Your task to perform on an android device: Go to eBay Image 0: 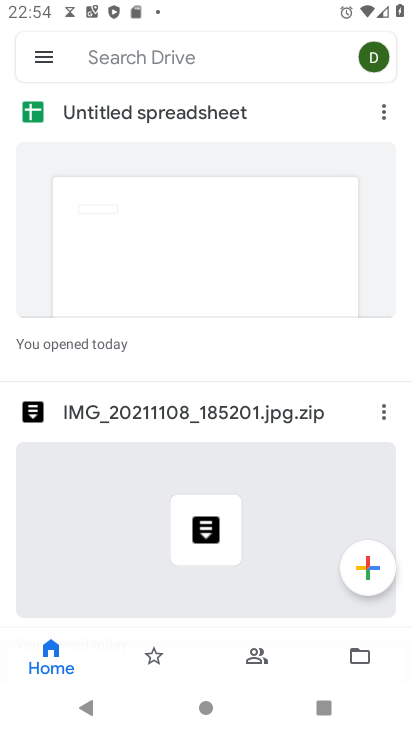
Step 0: press home button
Your task to perform on an android device: Go to eBay Image 1: 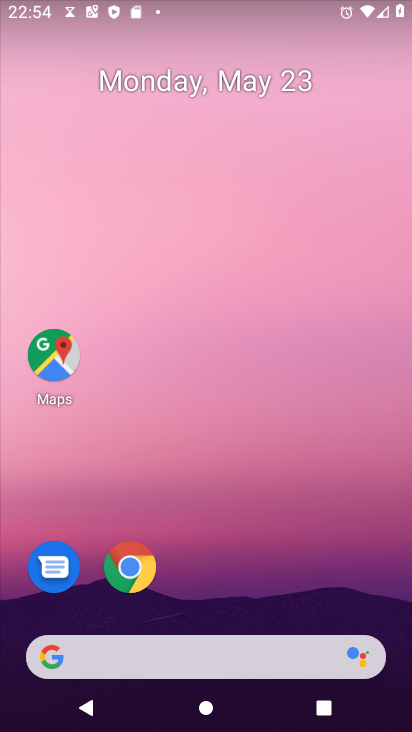
Step 1: click (134, 556)
Your task to perform on an android device: Go to eBay Image 2: 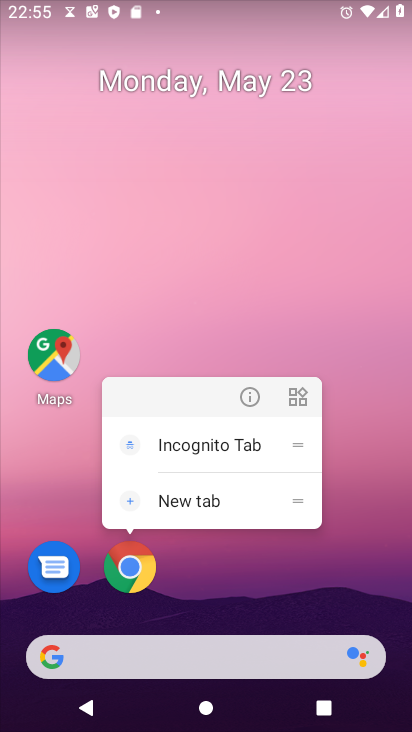
Step 2: click (133, 557)
Your task to perform on an android device: Go to eBay Image 3: 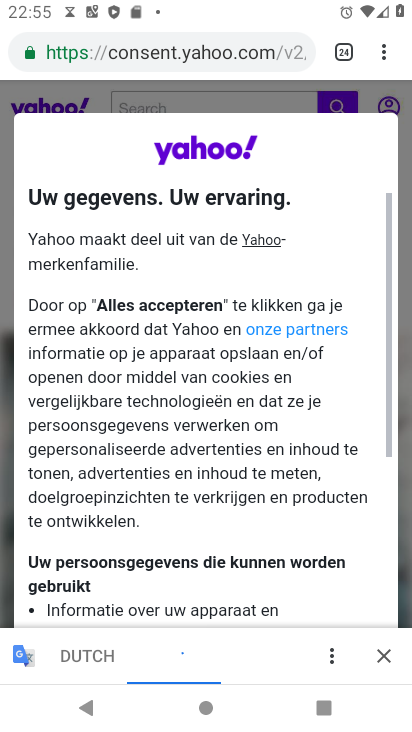
Step 3: click (390, 51)
Your task to perform on an android device: Go to eBay Image 4: 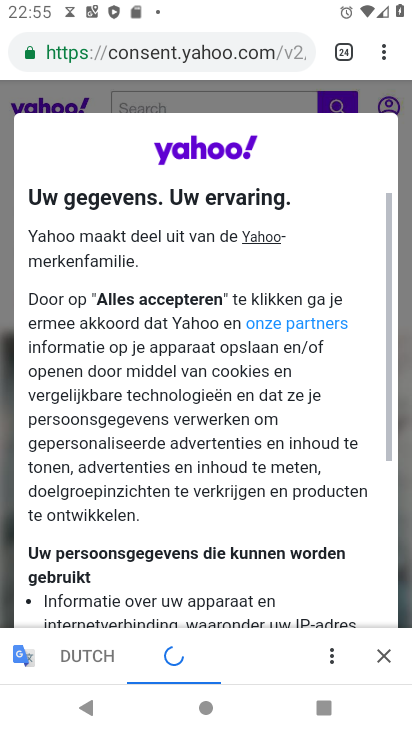
Step 4: click (343, 71)
Your task to perform on an android device: Go to eBay Image 5: 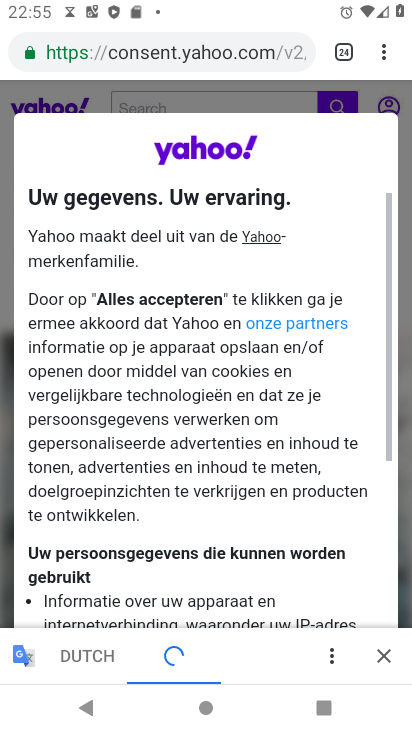
Step 5: click (372, 39)
Your task to perform on an android device: Go to eBay Image 6: 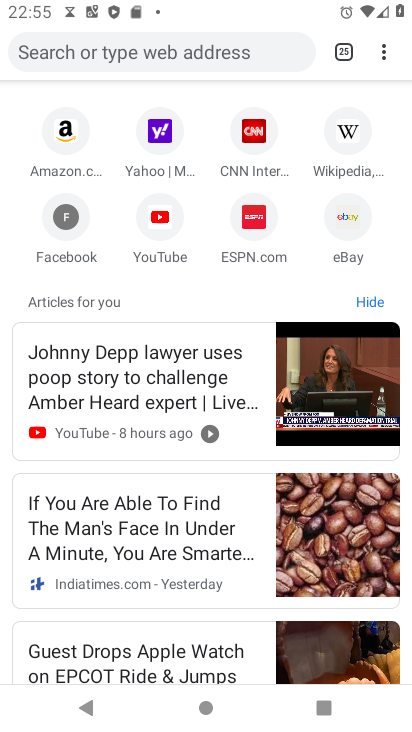
Step 6: click (122, 48)
Your task to perform on an android device: Go to eBay Image 7: 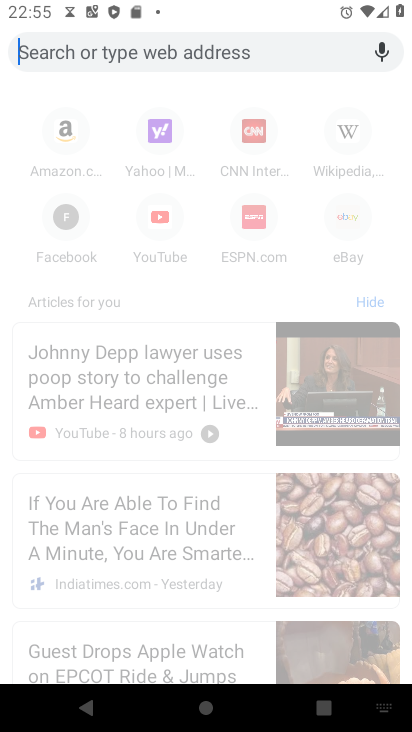
Step 7: type " eBay"
Your task to perform on an android device: Go to eBay Image 8: 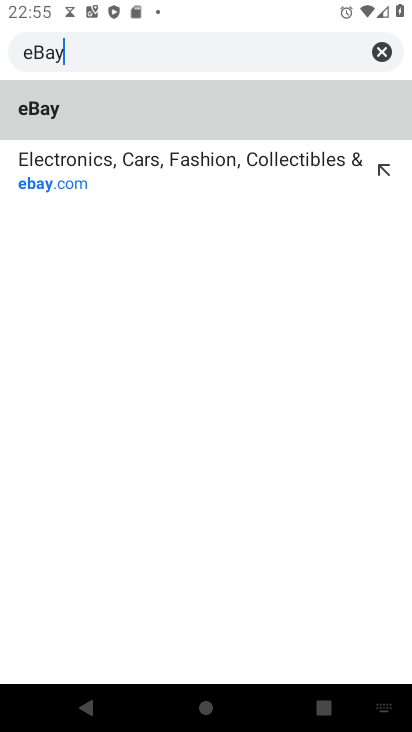
Step 8: click (331, 100)
Your task to perform on an android device: Go to eBay Image 9: 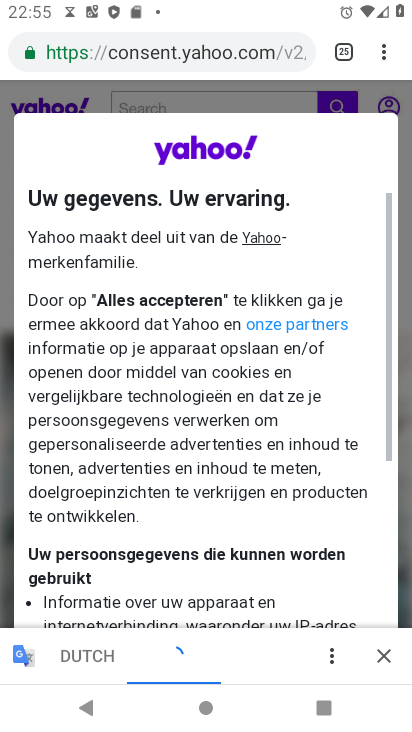
Step 9: task complete